Your task to perform on an android device: add a contact Image 0: 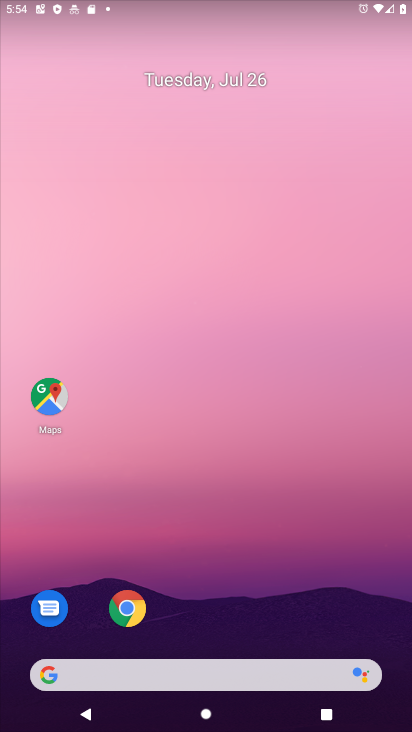
Step 0: press home button
Your task to perform on an android device: add a contact Image 1: 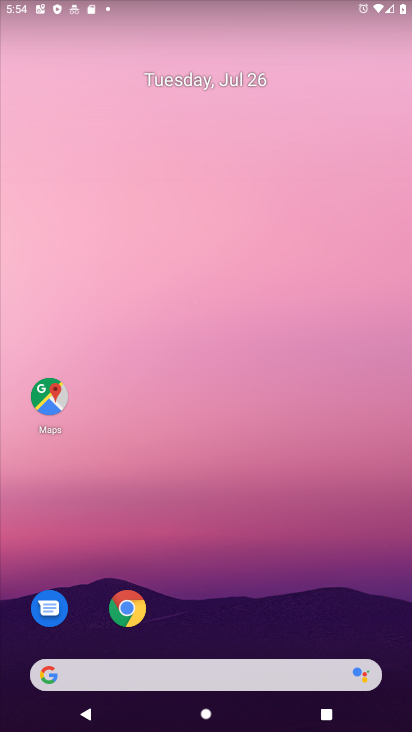
Step 1: drag from (226, 629) to (218, 20)
Your task to perform on an android device: add a contact Image 2: 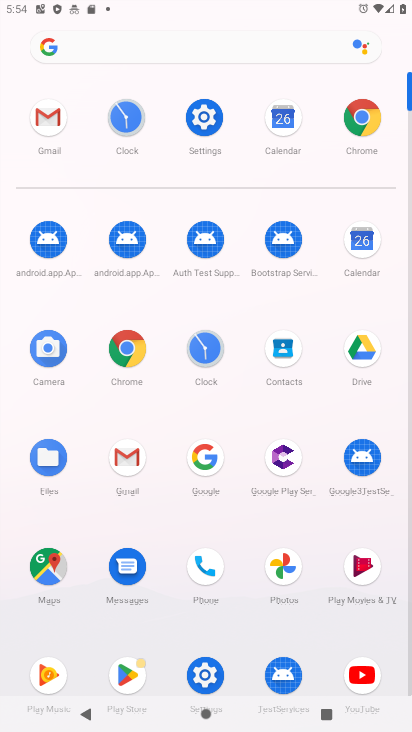
Step 2: click (284, 347)
Your task to perform on an android device: add a contact Image 3: 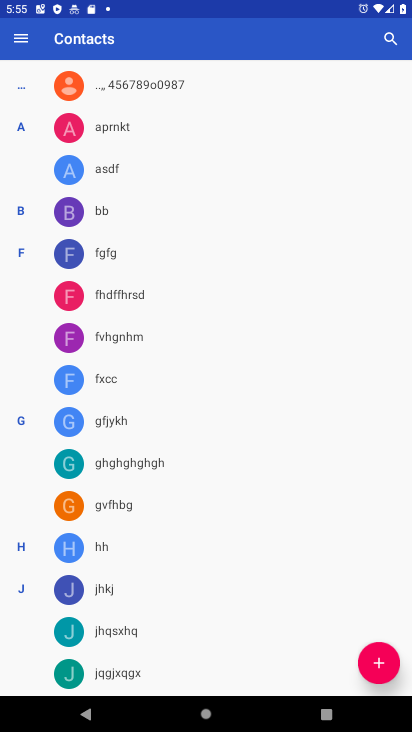
Step 3: click (378, 665)
Your task to perform on an android device: add a contact Image 4: 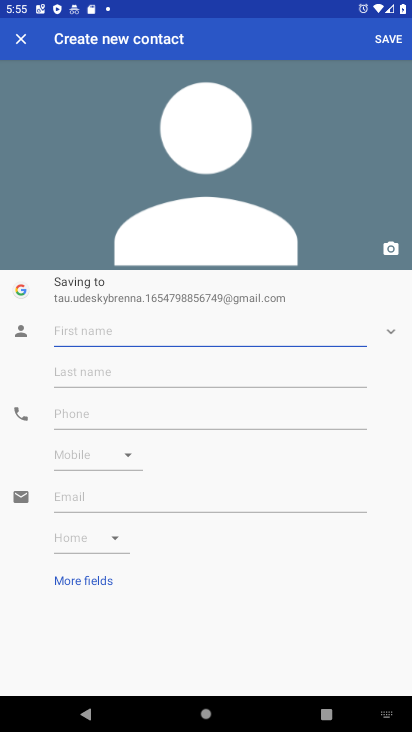
Step 4: type "cbvbvb"
Your task to perform on an android device: add a contact Image 5: 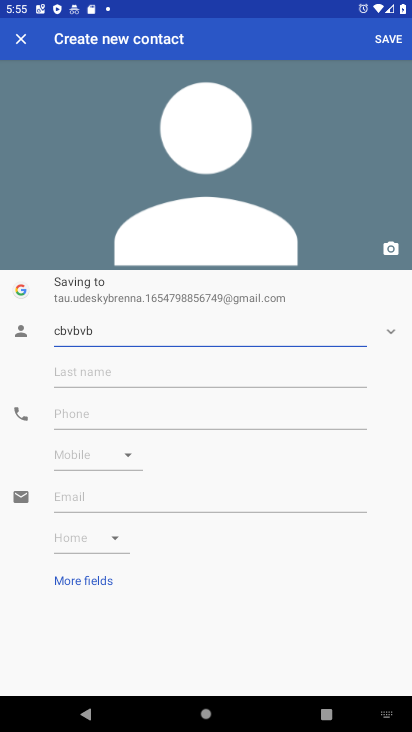
Step 5: click (140, 417)
Your task to perform on an android device: add a contact Image 6: 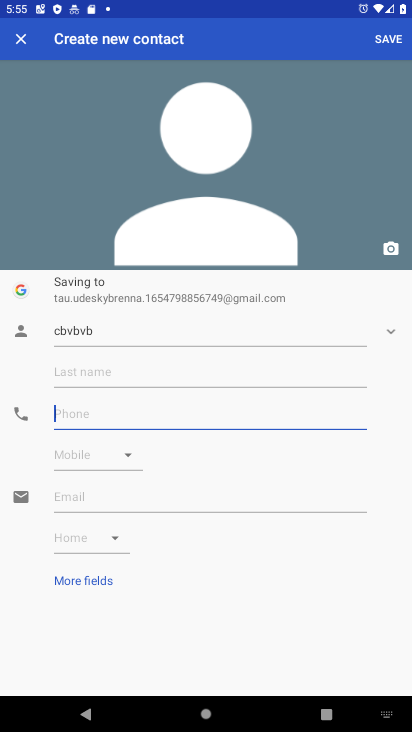
Step 6: type "4546575"
Your task to perform on an android device: add a contact Image 7: 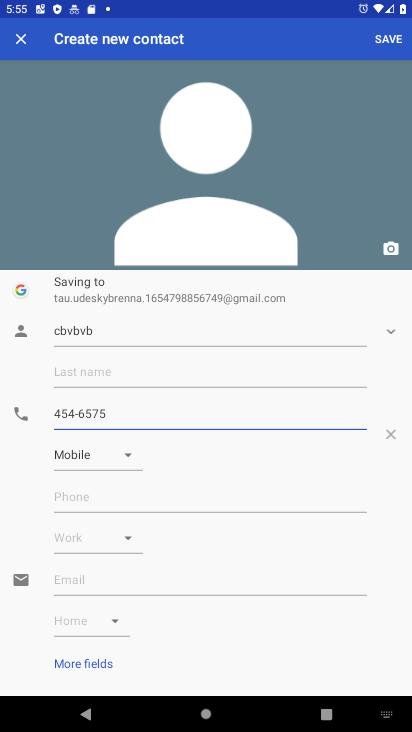
Step 7: click (386, 41)
Your task to perform on an android device: add a contact Image 8: 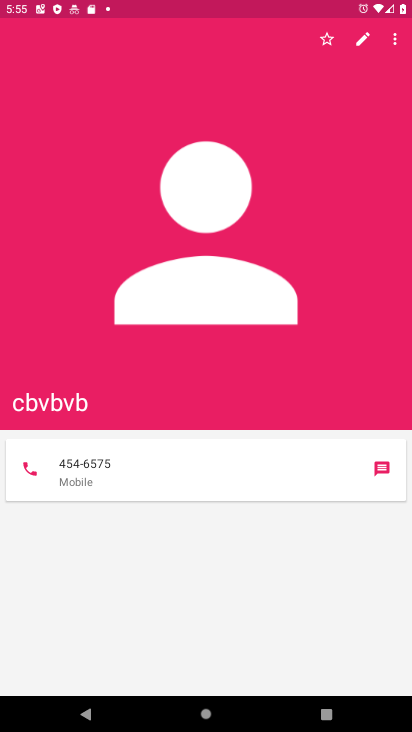
Step 8: task complete